Your task to perform on an android device: Open the Play Movies app and select the watchlist tab. Image 0: 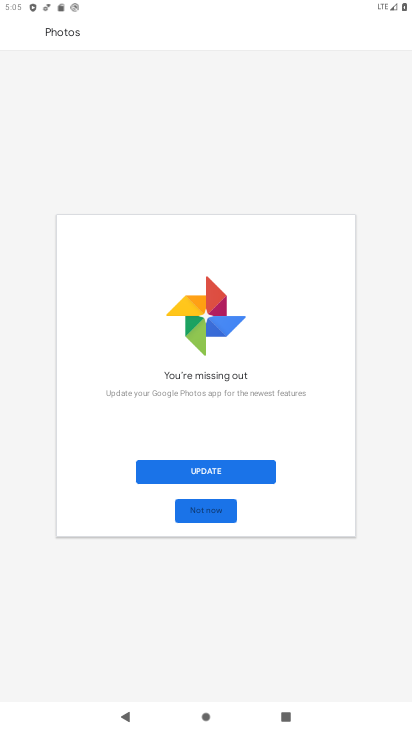
Step 0: press home button
Your task to perform on an android device: Open the Play Movies app and select the watchlist tab. Image 1: 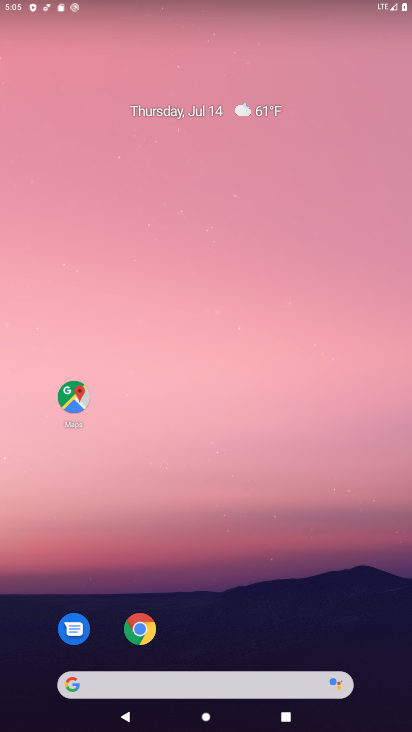
Step 1: drag from (310, 638) to (302, 50)
Your task to perform on an android device: Open the Play Movies app and select the watchlist tab. Image 2: 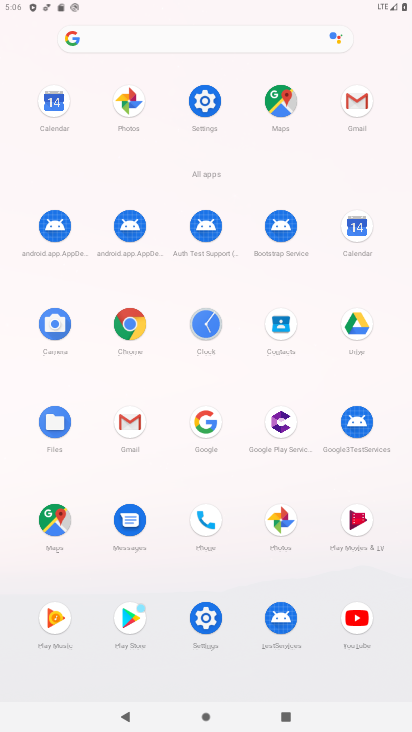
Step 2: click (357, 514)
Your task to perform on an android device: Open the Play Movies app and select the watchlist tab. Image 3: 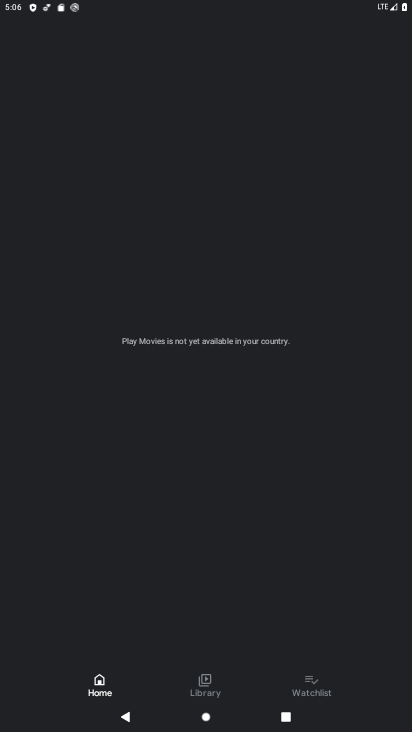
Step 3: click (298, 673)
Your task to perform on an android device: Open the Play Movies app and select the watchlist tab. Image 4: 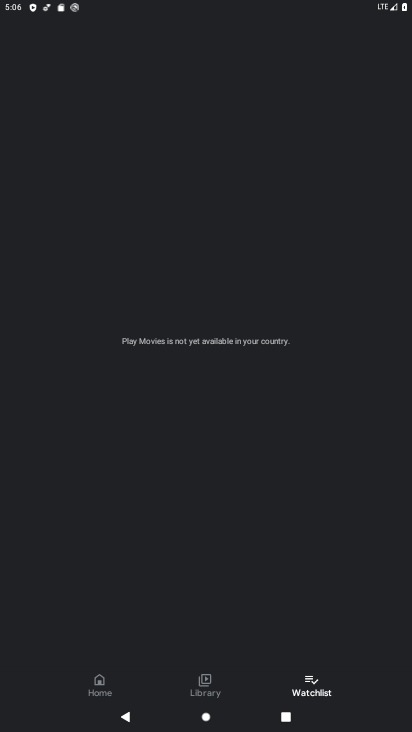
Step 4: task complete